Your task to perform on an android device: Open the web browser Image 0: 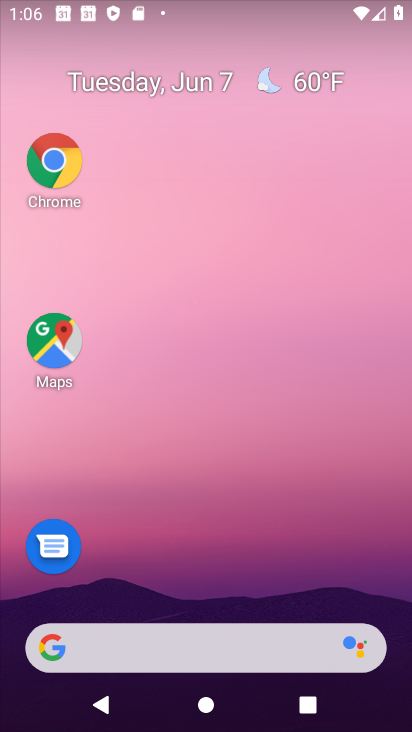
Step 0: drag from (183, 599) to (248, 181)
Your task to perform on an android device: Open the web browser Image 1: 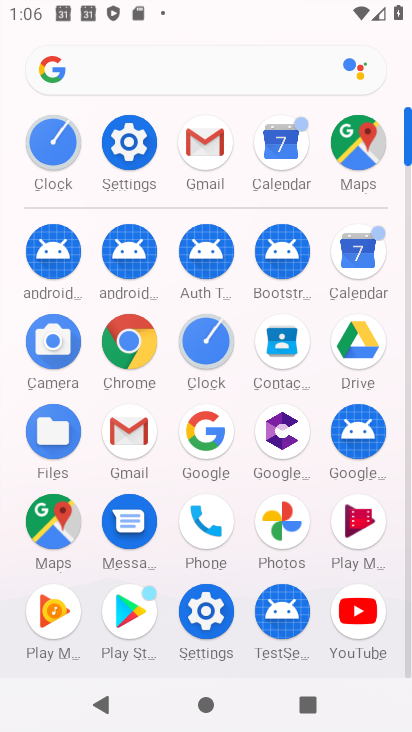
Step 1: click (129, 337)
Your task to perform on an android device: Open the web browser Image 2: 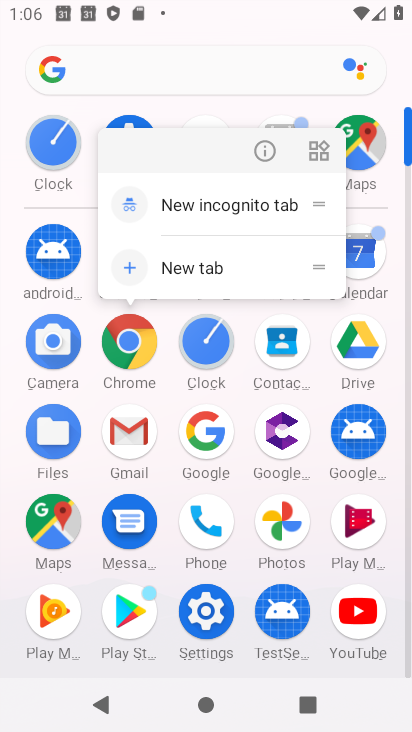
Step 2: click (254, 145)
Your task to perform on an android device: Open the web browser Image 3: 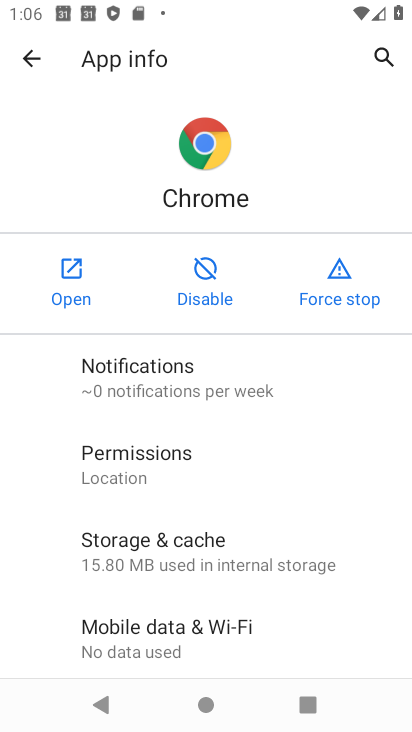
Step 3: click (82, 277)
Your task to perform on an android device: Open the web browser Image 4: 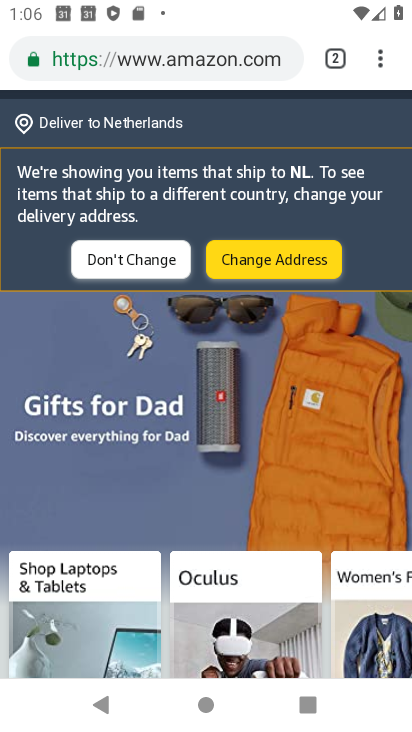
Step 4: task complete